Your task to perform on an android device: When is my next appointment? Image 0: 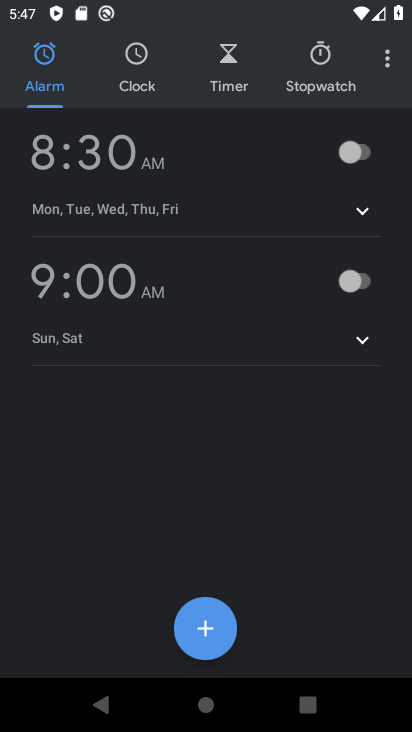
Step 0: press home button
Your task to perform on an android device: When is my next appointment? Image 1: 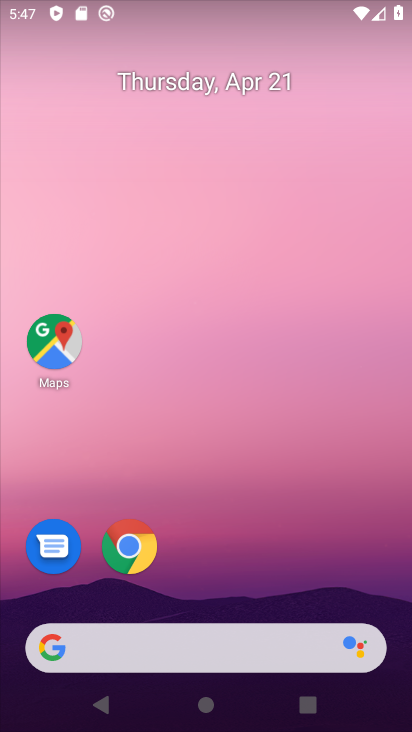
Step 1: drag from (223, 568) to (233, 45)
Your task to perform on an android device: When is my next appointment? Image 2: 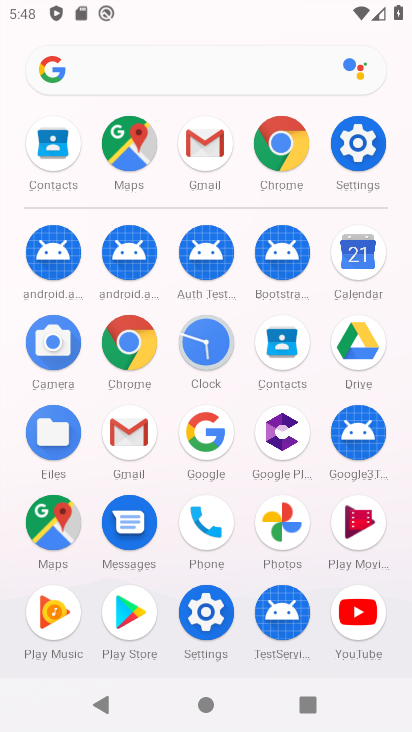
Step 2: click (354, 255)
Your task to perform on an android device: When is my next appointment? Image 3: 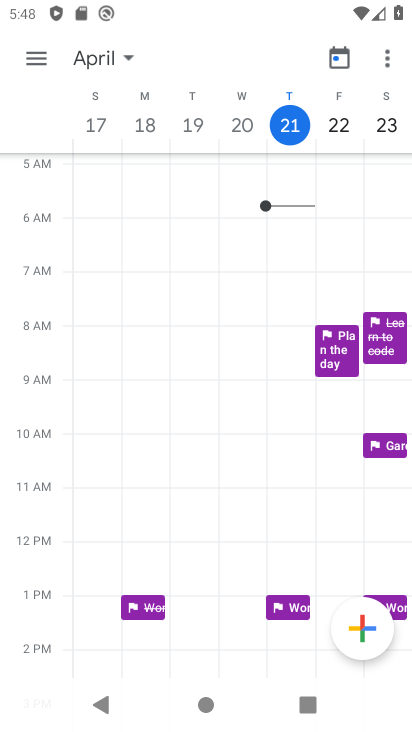
Step 3: click (40, 61)
Your task to perform on an android device: When is my next appointment? Image 4: 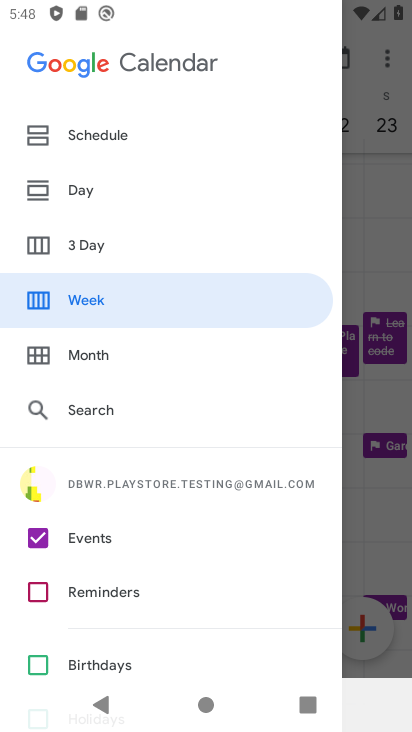
Step 4: click (97, 131)
Your task to perform on an android device: When is my next appointment? Image 5: 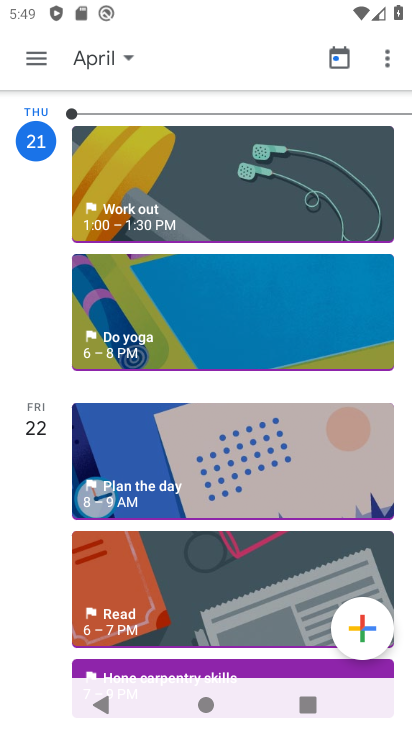
Step 5: task complete